Your task to perform on an android device: delete a single message in the gmail app Image 0: 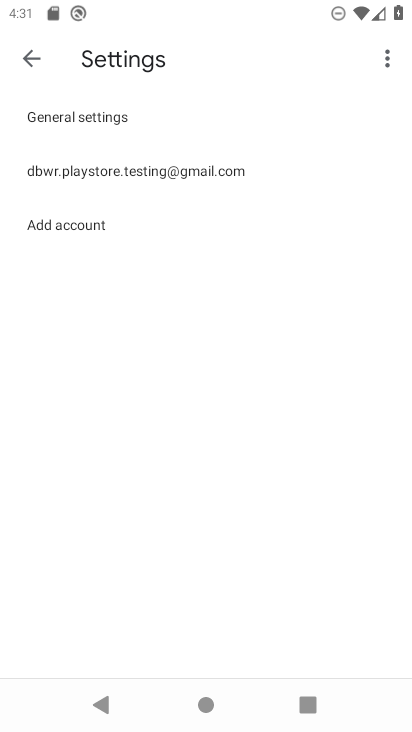
Step 0: press home button
Your task to perform on an android device: delete a single message in the gmail app Image 1: 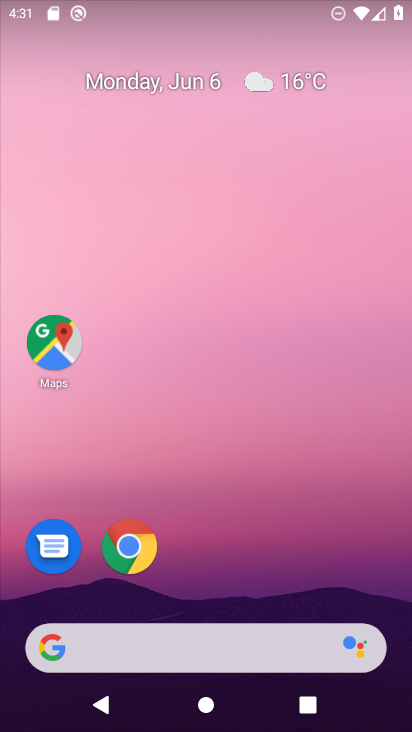
Step 1: drag from (196, 645) to (123, 41)
Your task to perform on an android device: delete a single message in the gmail app Image 2: 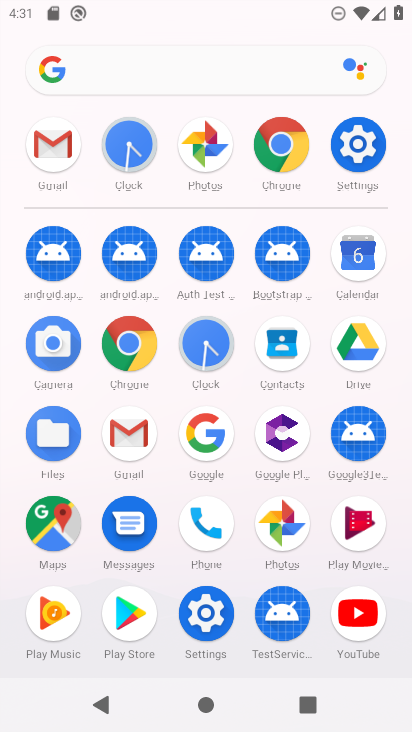
Step 2: click (128, 448)
Your task to perform on an android device: delete a single message in the gmail app Image 3: 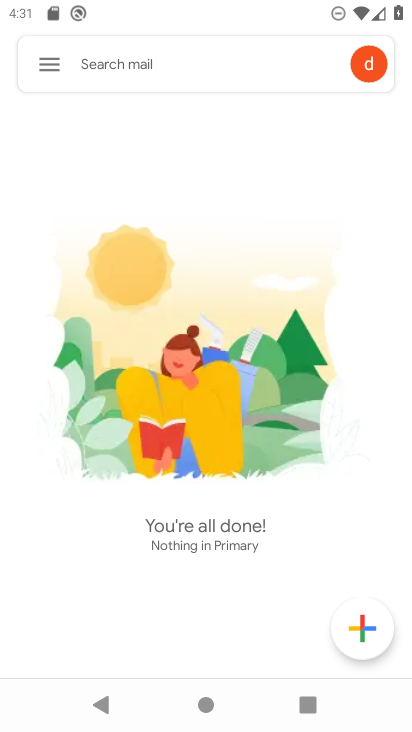
Step 3: task complete